Your task to perform on an android device: add a contact Image 0: 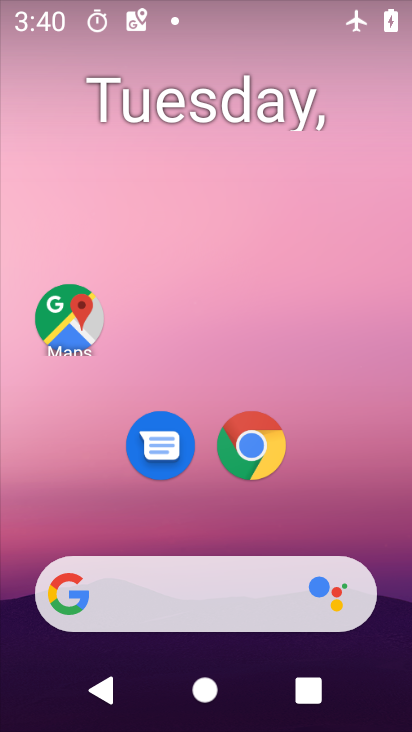
Step 0: drag from (241, 522) to (261, 24)
Your task to perform on an android device: add a contact Image 1: 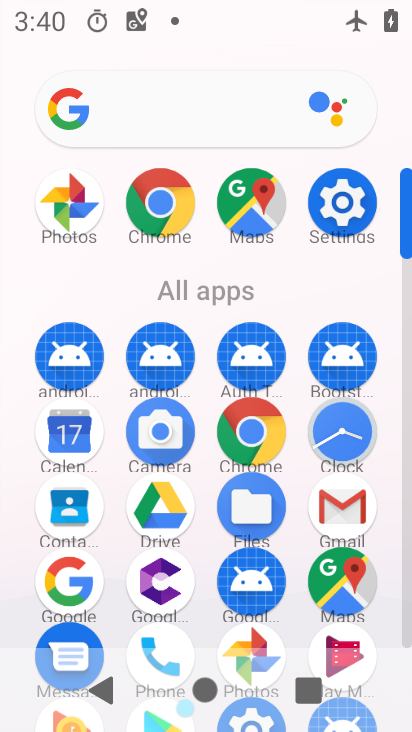
Step 1: click (157, 633)
Your task to perform on an android device: add a contact Image 2: 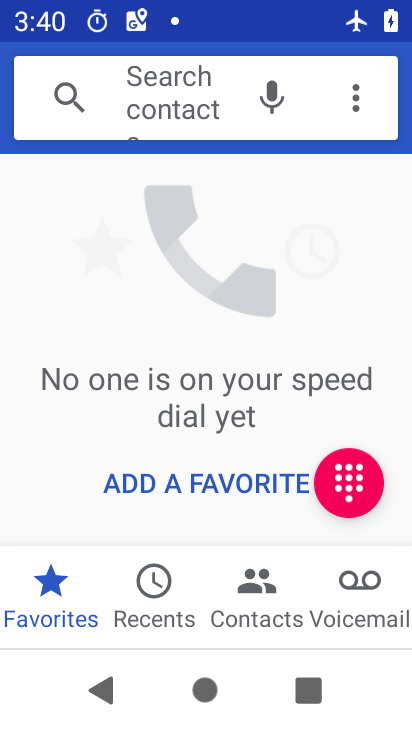
Step 2: click (238, 601)
Your task to perform on an android device: add a contact Image 3: 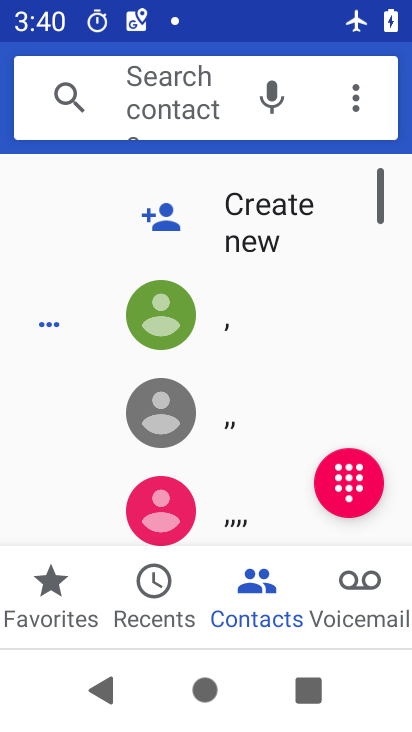
Step 3: click (259, 201)
Your task to perform on an android device: add a contact Image 4: 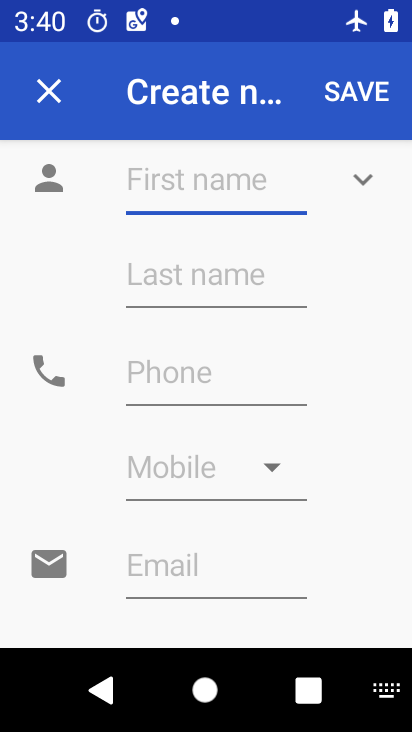
Step 4: type "Taarak "
Your task to perform on an android device: add a contact Image 5: 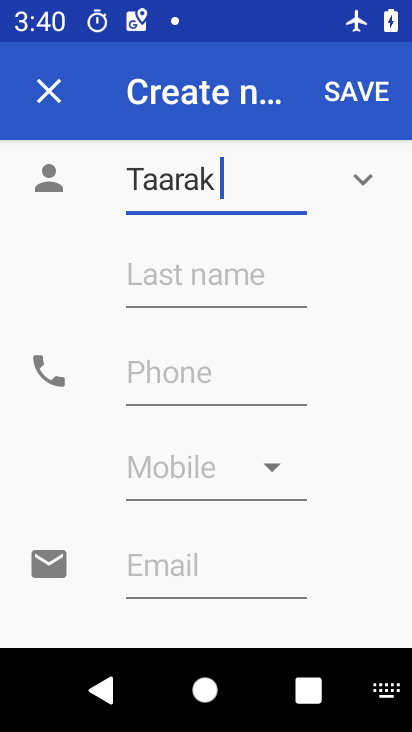
Step 5: type ""
Your task to perform on an android device: add a contact Image 6: 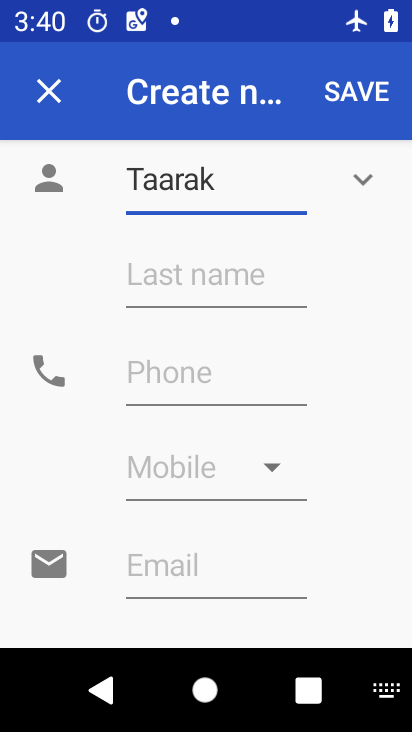
Step 6: click (370, 92)
Your task to perform on an android device: add a contact Image 7: 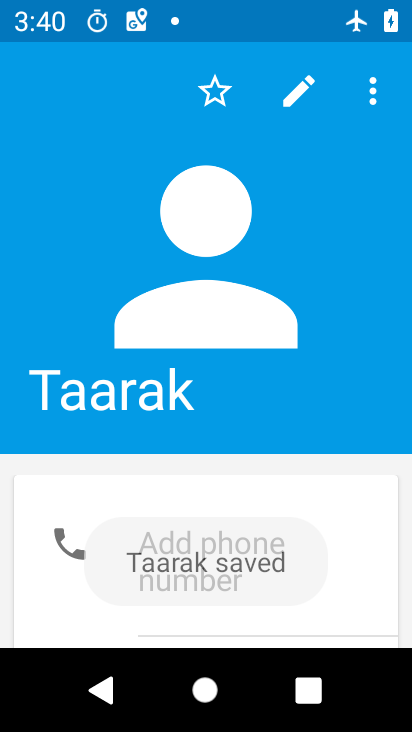
Step 7: task complete